Your task to perform on an android device: refresh tabs in the chrome app Image 0: 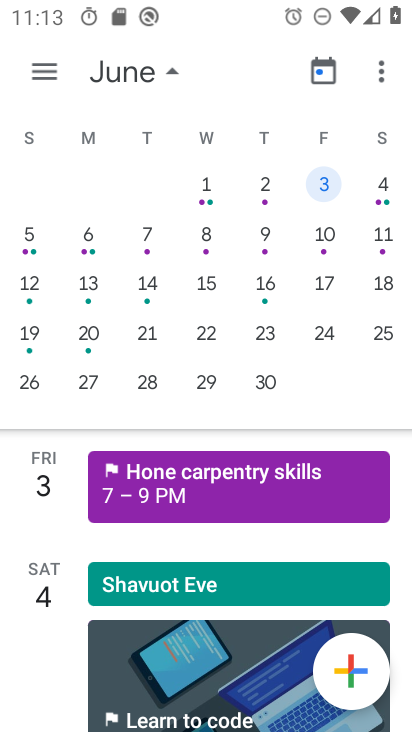
Step 0: press home button
Your task to perform on an android device: refresh tabs in the chrome app Image 1: 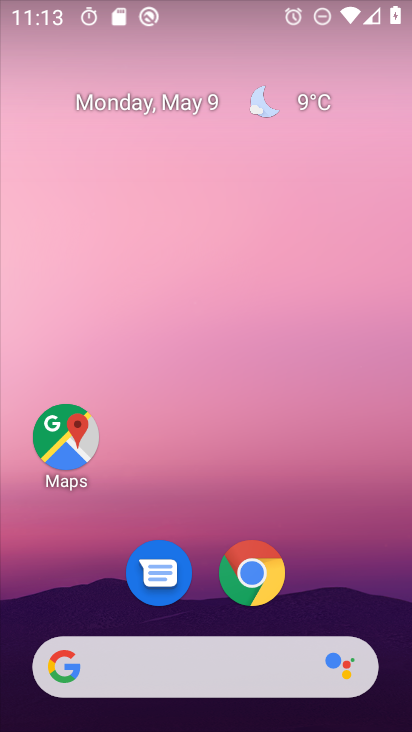
Step 1: click (250, 571)
Your task to perform on an android device: refresh tabs in the chrome app Image 2: 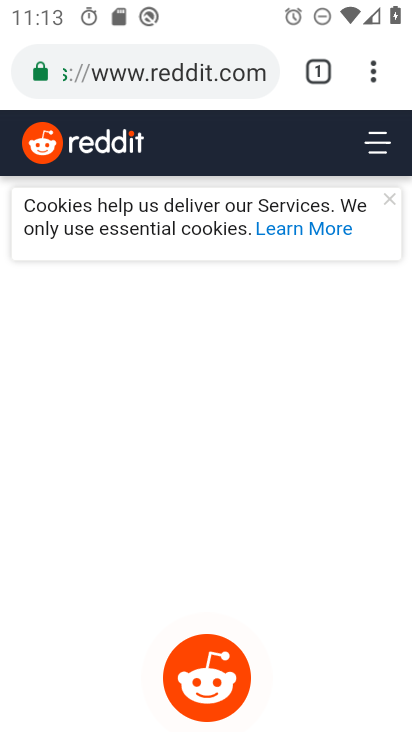
Step 2: click (373, 71)
Your task to perform on an android device: refresh tabs in the chrome app Image 3: 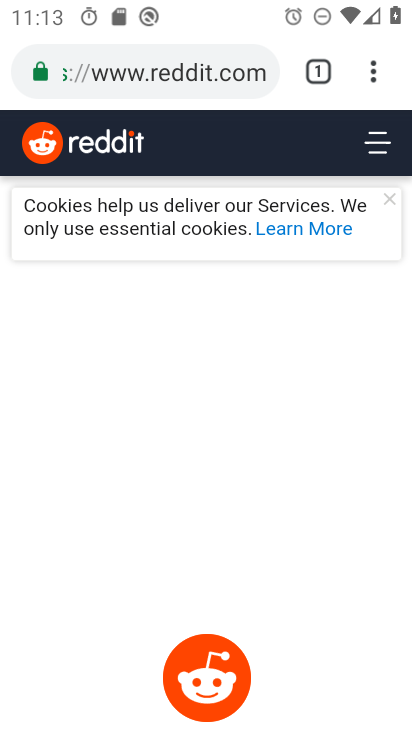
Step 3: task complete